Your task to perform on an android device: check android version Image 0: 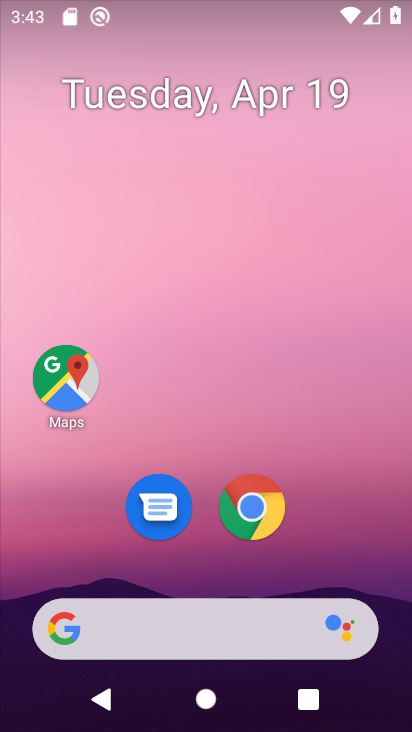
Step 0: drag from (331, 537) to (281, 165)
Your task to perform on an android device: check android version Image 1: 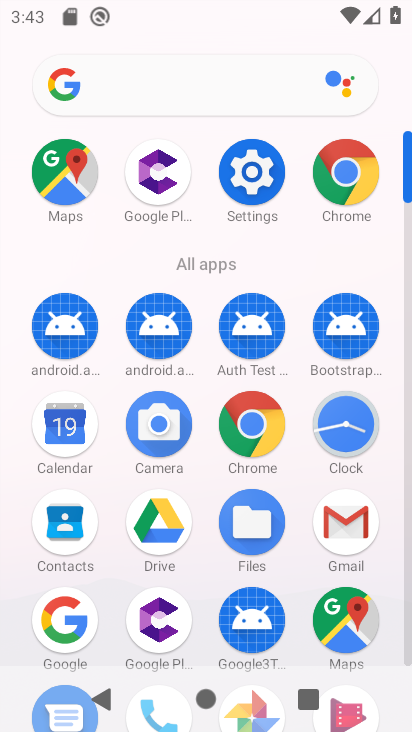
Step 1: click (250, 171)
Your task to perform on an android device: check android version Image 2: 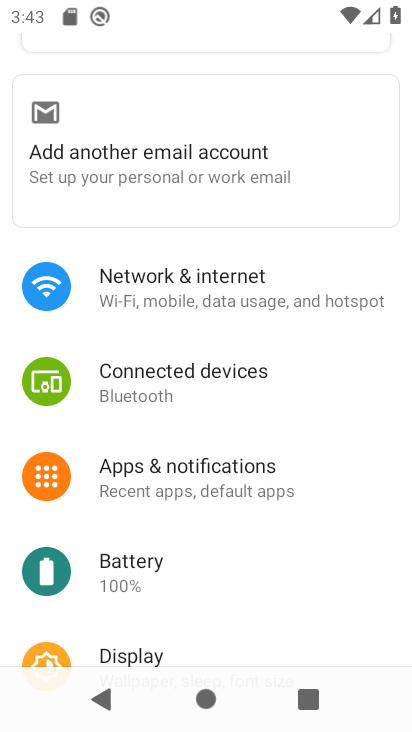
Step 2: drag from (246, 531) to (246, 296)
Your task to perform on an android device: check android version Image 3: 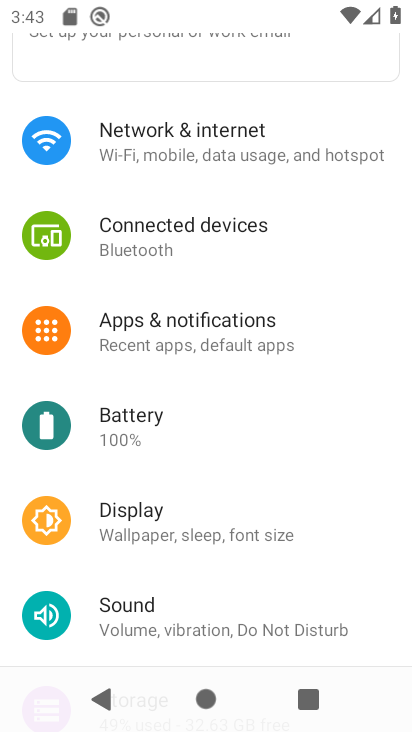
Step 3: drag from (213, 490) to (216, 370)
Your task to perform on an android device: check android version Image 4: 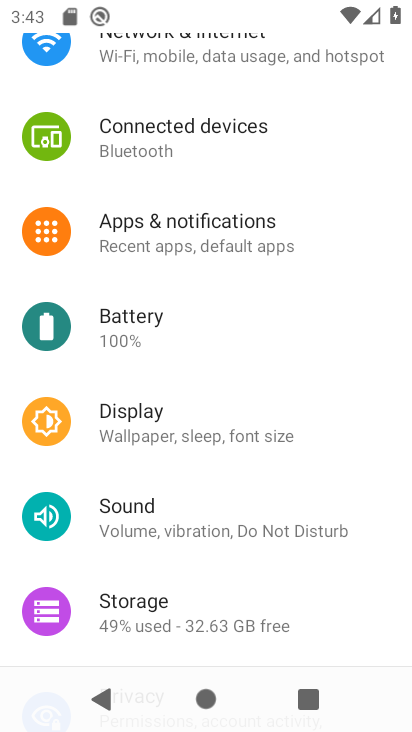
Step 4: drag from (234, 546) to (238, 393)
Your task to perform on an android device: check android version Image 5: 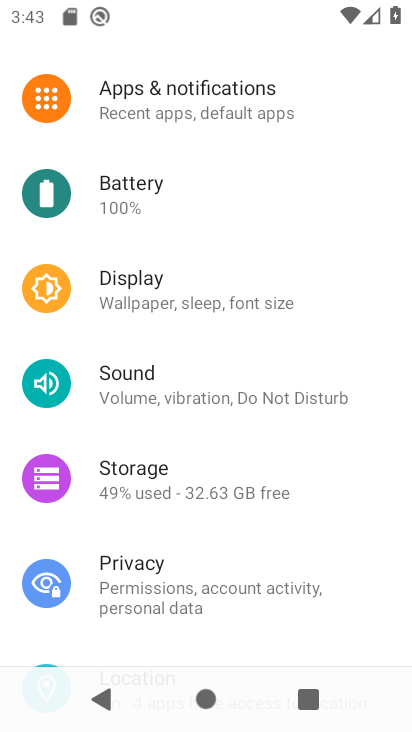
Step 5: drag from (219, 523) to (227, 420)
Your task to perform on an android device: check android version Image 6: 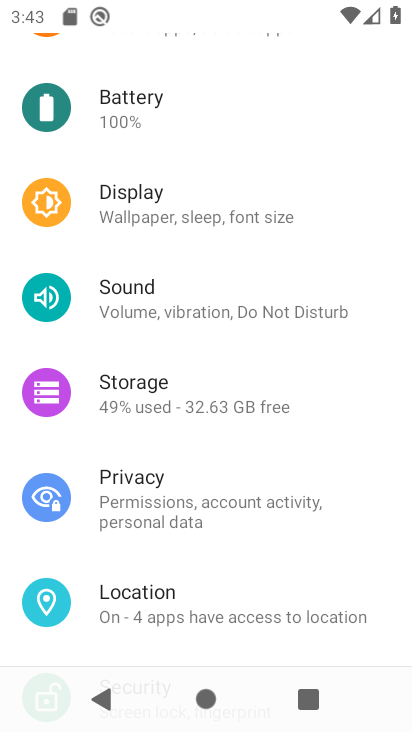
Step 6: drag from (216, 540) to (229, 370)
Your task to perform on an android device: check android version Image 7: 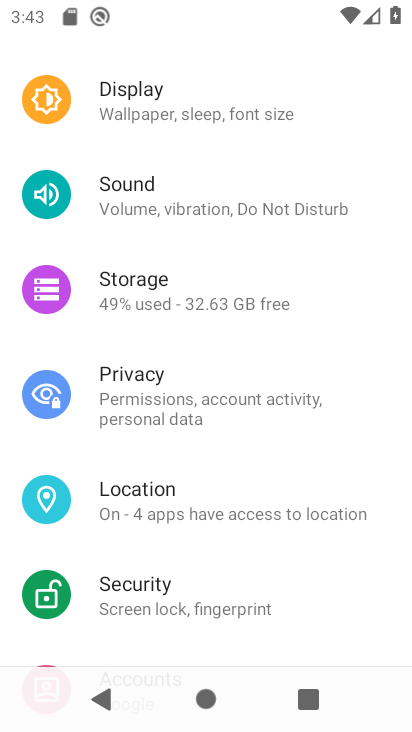
Step 7: drag from (232, 472) to (223, 359)
Your task to perform on an android device: check android version Image 8: 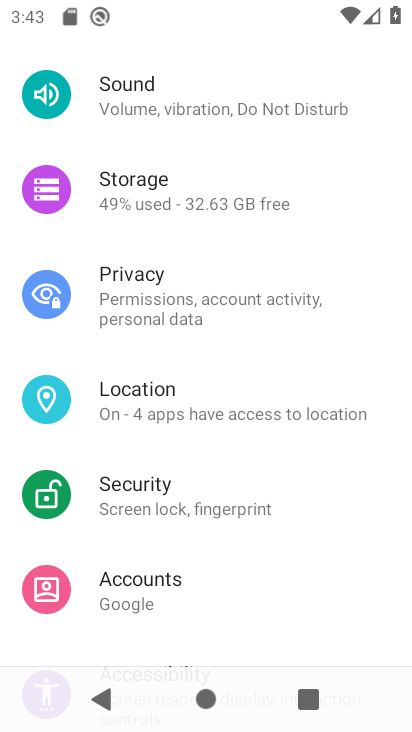
Step 8: drag from (222, 534) to (228, 306)
Your task to perform on an android device: check android version Image 9: 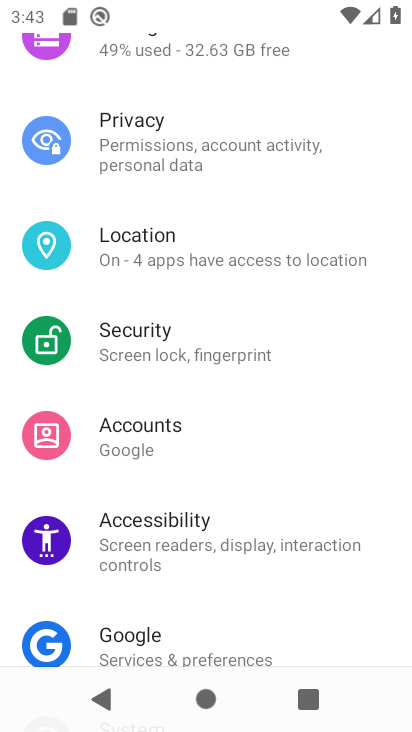
Step 9: drag from (235, 458) to (228, 356)
Your task to perform on an android device: check android version Image 10: 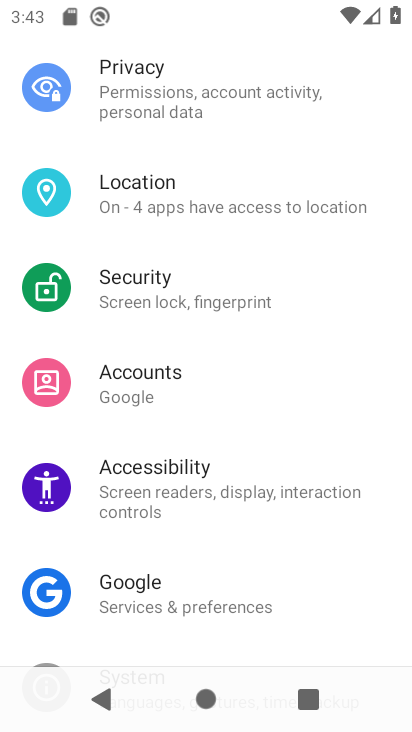
Step 10: drag from (231, 510) to (244, 375)
Your task to perform on an android device: check android version Image 11: 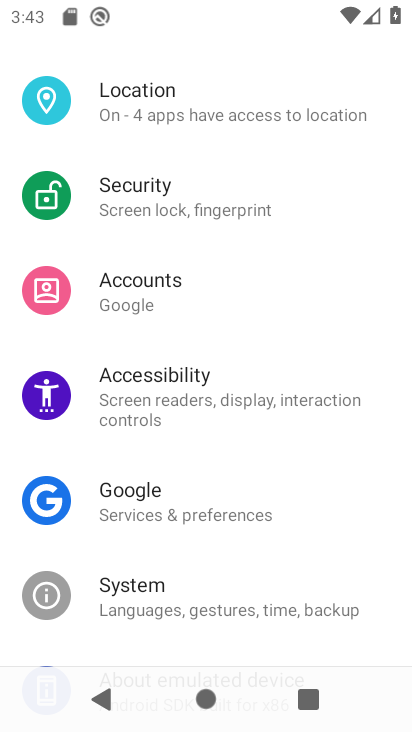
Step 11: drag from (255, 524) to (300, 357)
Your task to perform on an android device: check android version Image 12: 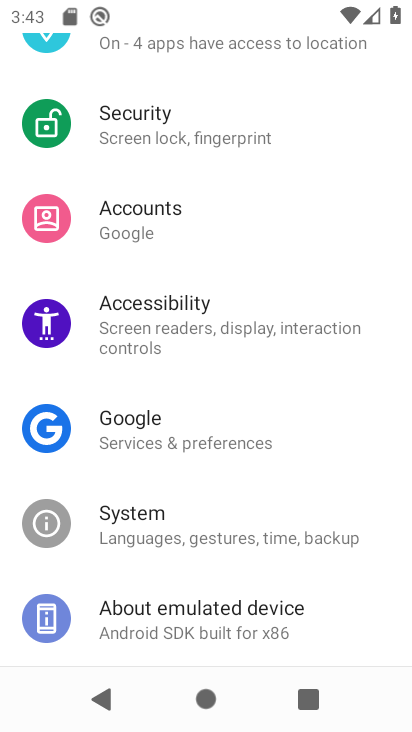
Step 12: click (214, 603)
Your task to perform on an android device: check android version Image 13: 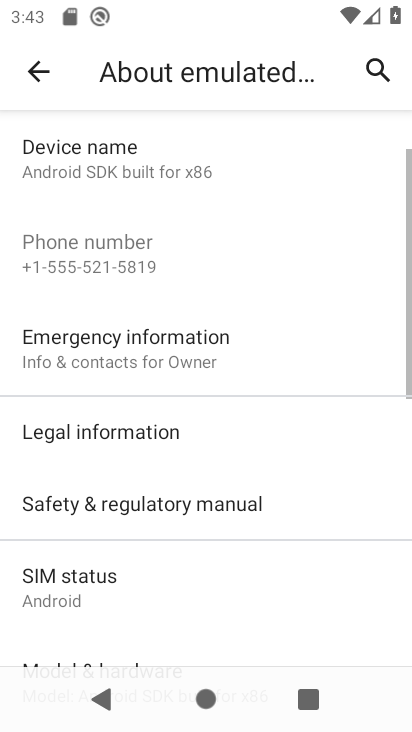
Step 13: drag from (202, 578) to (236, 387)
Your task to perform on an android device: check android version Image 14: 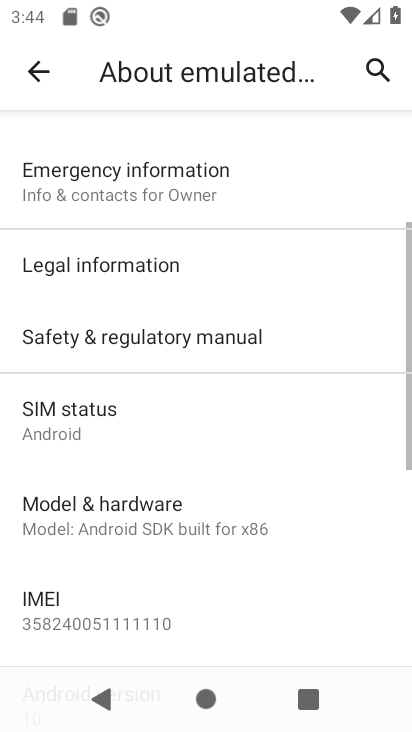
Step 14: drag from (208, 573) to (230, 386)
Your task to perform on an android device: check android version Image 15: 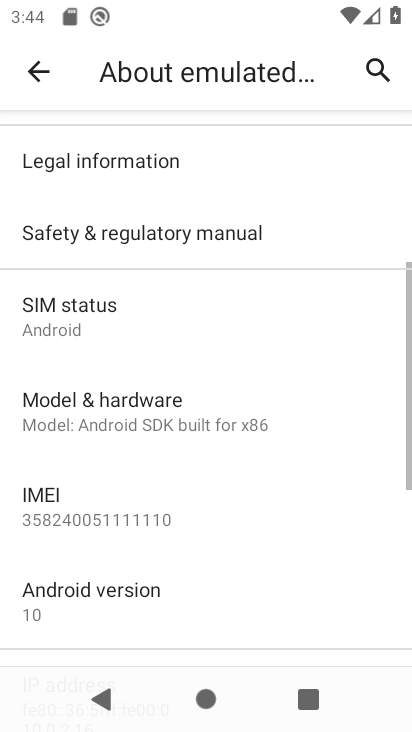
Step 15: click (194, 605)
Your task to perform on an android device: check android version Image 16: 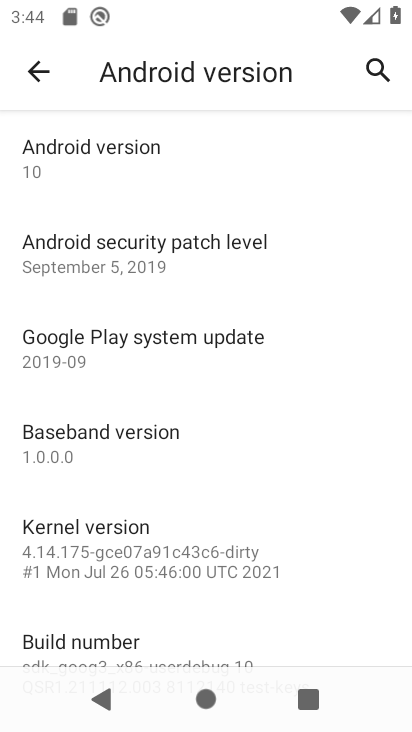
Step 16: task complete